Your task to perform on an android device: Open Google Maps and go to "Timeline" Image 0: 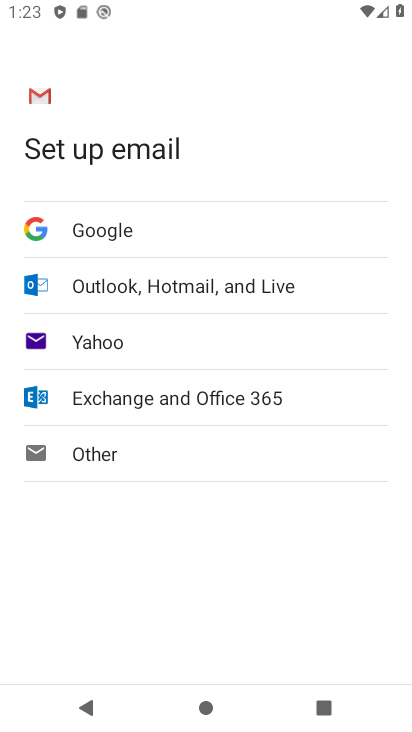
Step 0: press home button
Your task to perform on an android device: Open Google Maps and go to "Timeline" Image 1: 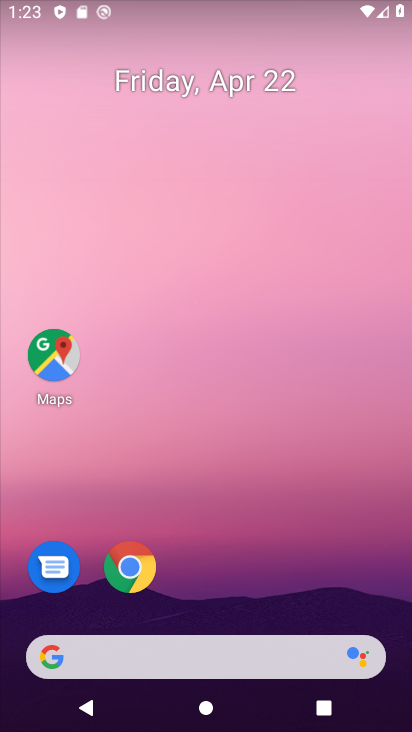
Step 1: click (59, 353)
Your task to perform on an android device: Open Google Maps and go to "Timeline" Image 2: 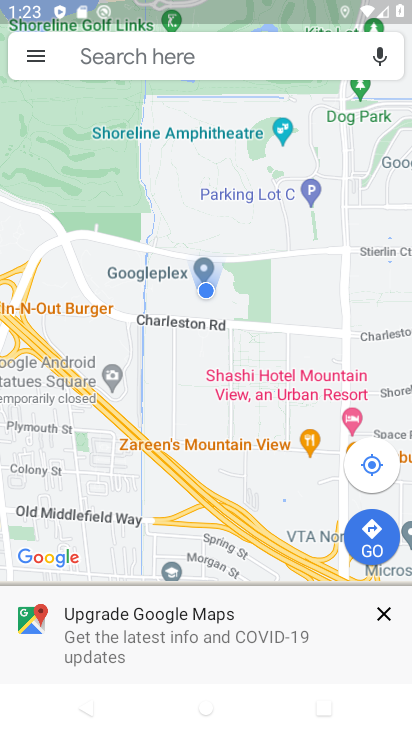
Step 2: click (32, 52)
Your task to perform on an android device: Open Google Maps and go to "Timeline" Image 3: 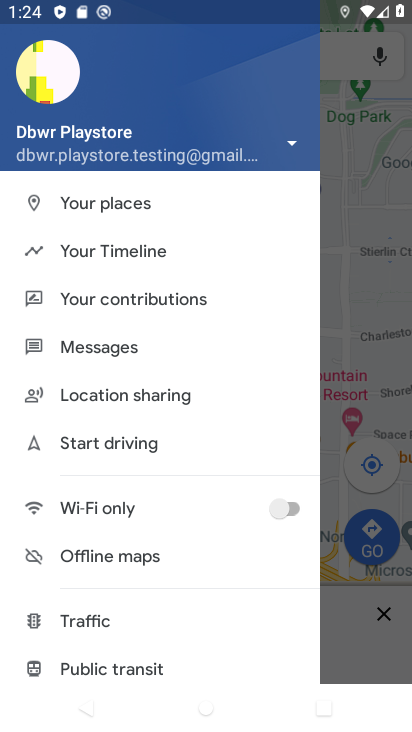
Step 3: click (131, 258)
Your task to perform on an android device: Open Google Maps and go to "Timeline" Image 4: 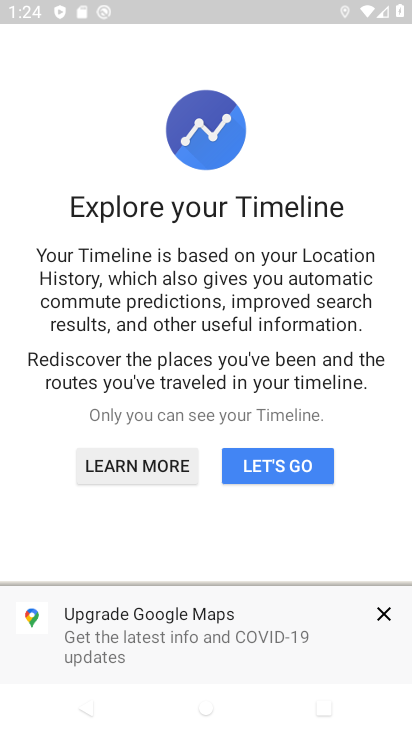
Step 4: click (284, 469)
Your task to perform on an android device: Open Google Maps and go to "Timeline" Image 5: 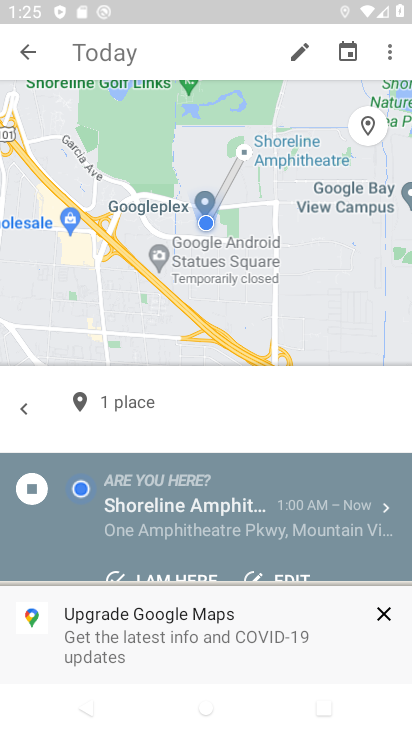
Step 5: task complete